Your task to perform on an android device: set the timer Image 0: 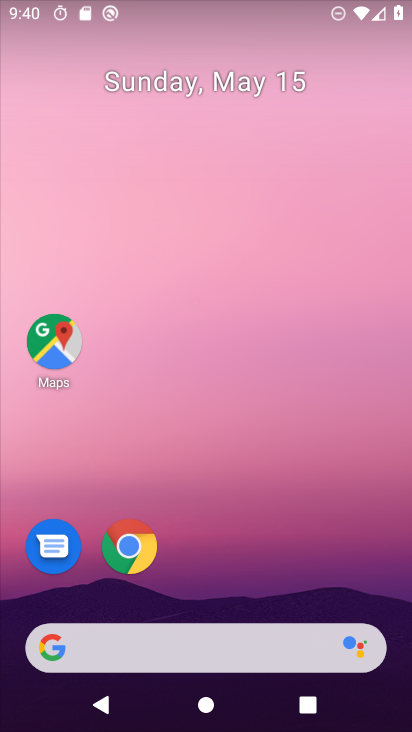
Step 0: drag from (276, 504) to (336, 68)
Your task to perform on an android device: set the timer Image 1: 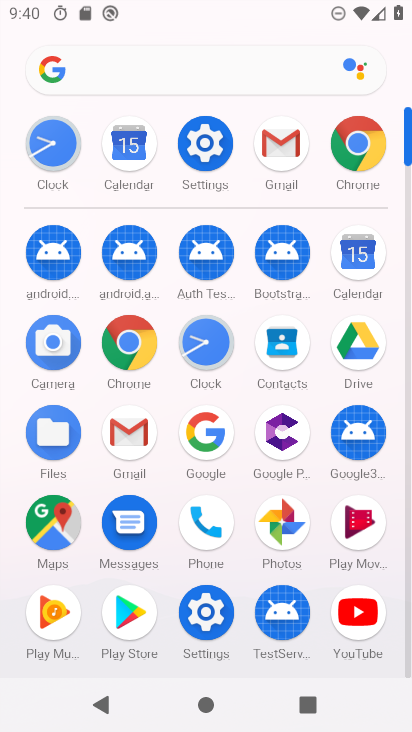
Step 1: click (64, 139)
Your task to perform on an android device: set the timer Image 2: 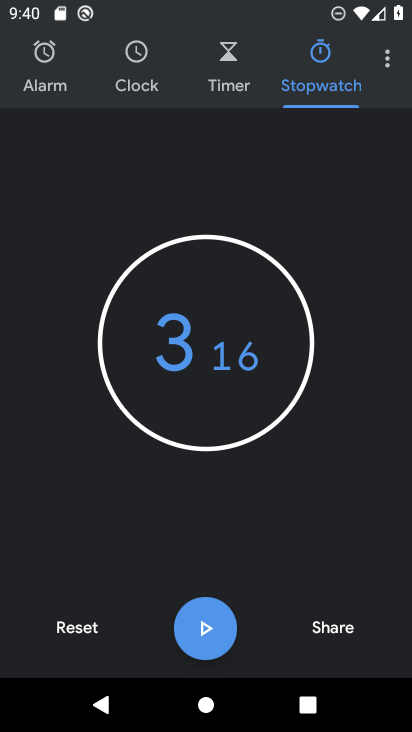
Step 2: click (228, 76)
Your task to perform on an android device: set the timer Image 3: 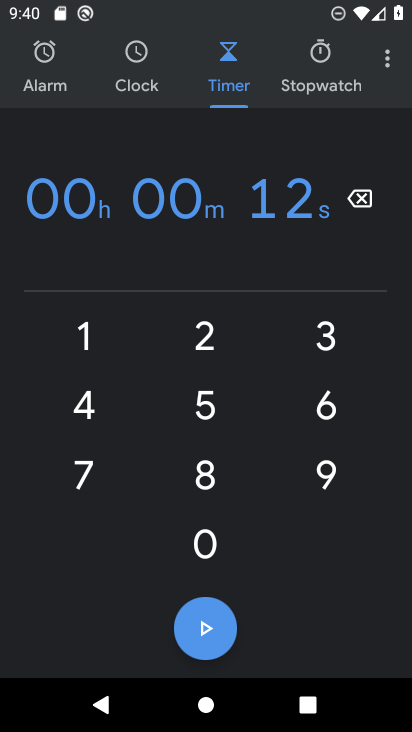
Step 3: click (365, 200)
Your task to perform on an android device: set the timer Image 4: 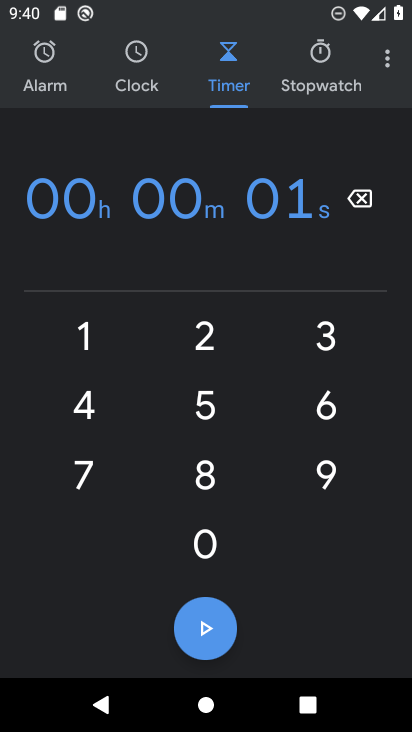
Step 4: task complete